Your task to perform on an android device: Do I have any events tomorrow? Image 0: 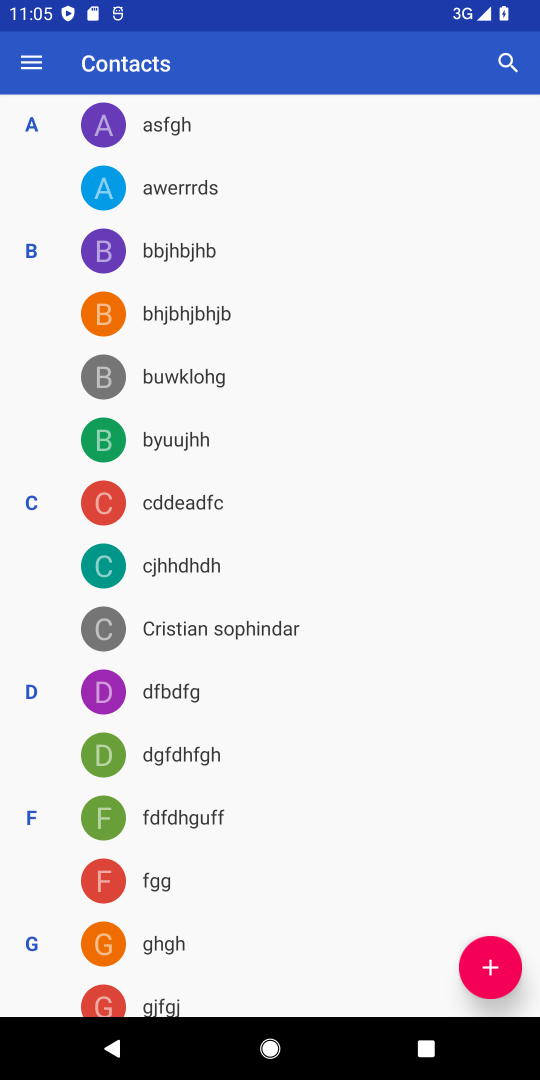
Step 0: press home button
Your task to perform on an android device: Do I have any events tomorrow? Image 1: 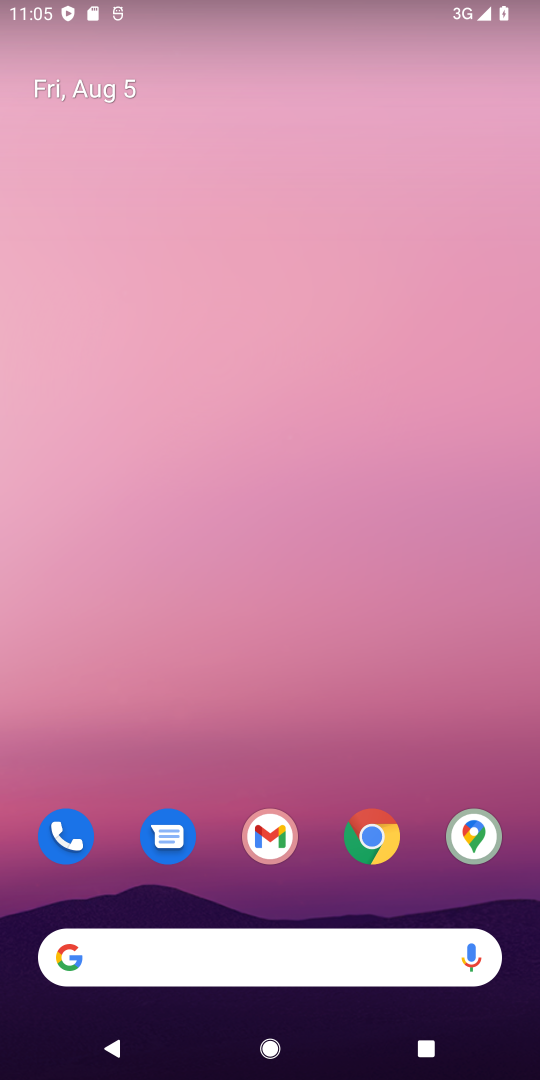
Step 1: drag from (322, 876) to (324, 114)
Your task to perform on an android device: Do I have any events tomorrow? Image 2: 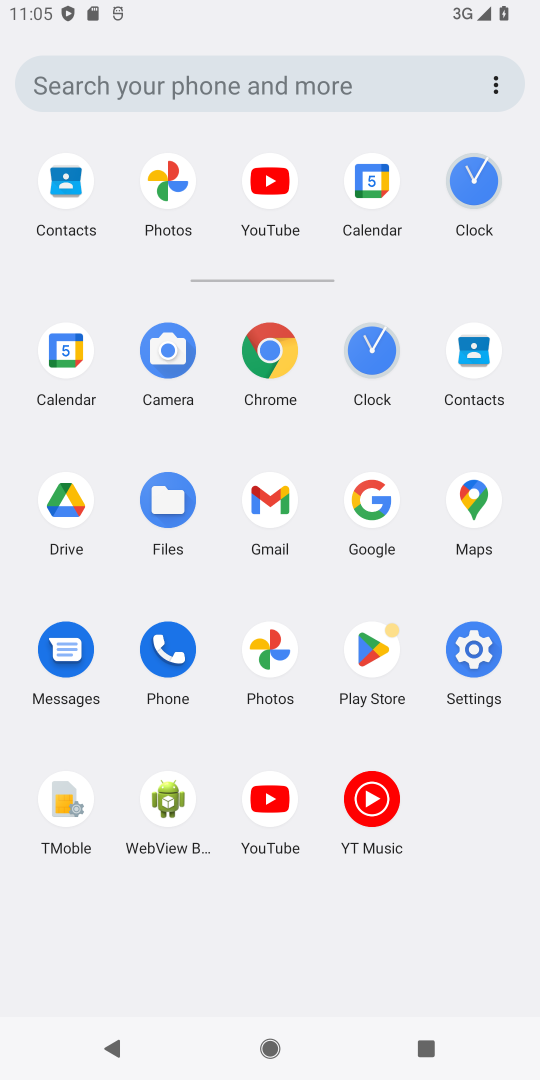
Step 2: click (73, 337)
Your task to perform on an android device: Do I have any events tomorrow? Image 3: 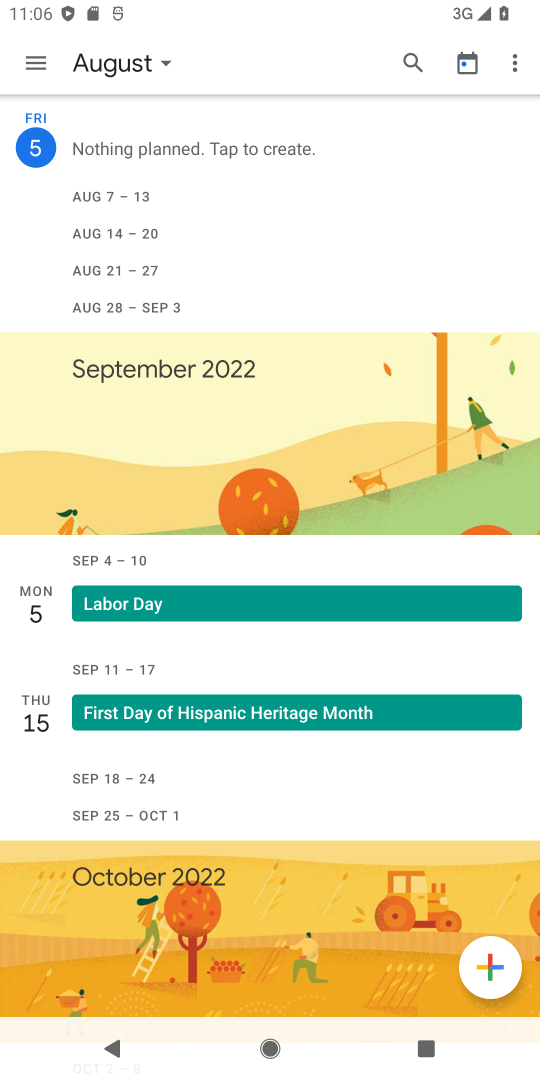
Step 3: click (130, 68)
Your task to perform on an android device: Do I have any events tomorrow? Image 4: 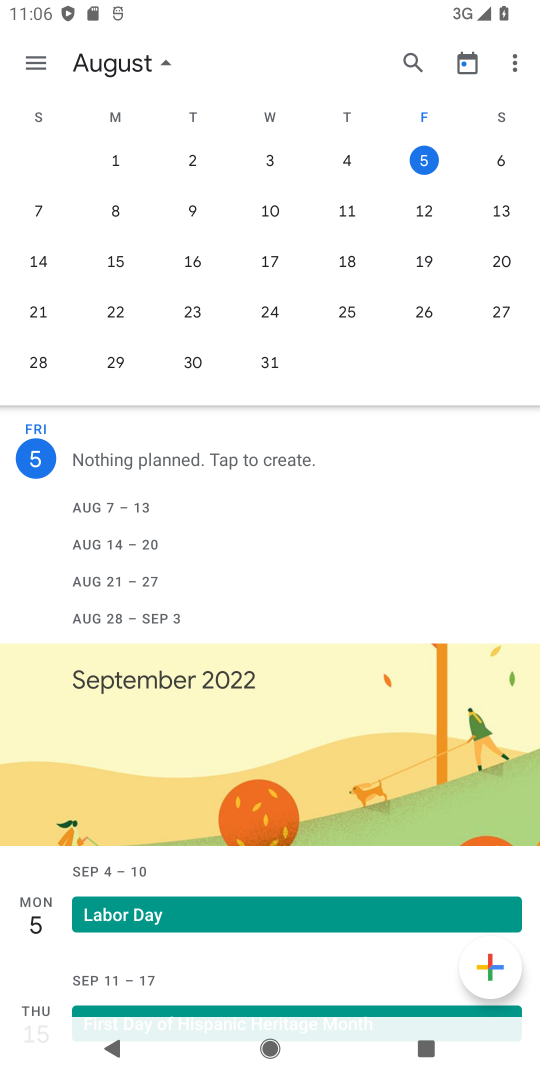
Step 4: click (502, 152)
Your task to perform on an android device: Do I have any events tomorrow? Image 5: 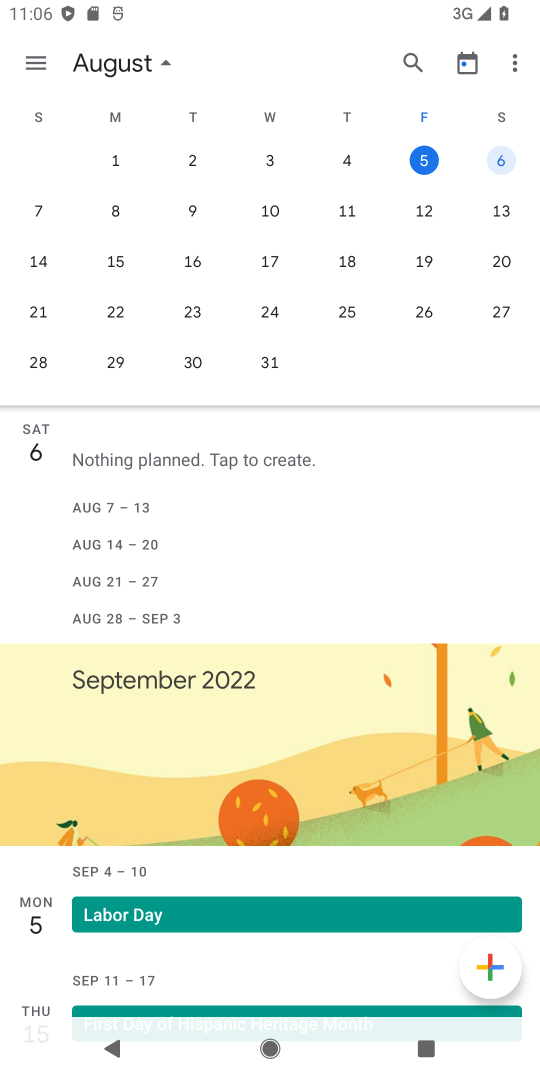
Step 5: click (509, 157)
Your task to perform on an android device: Do I have any events tomorrow? Image 6: 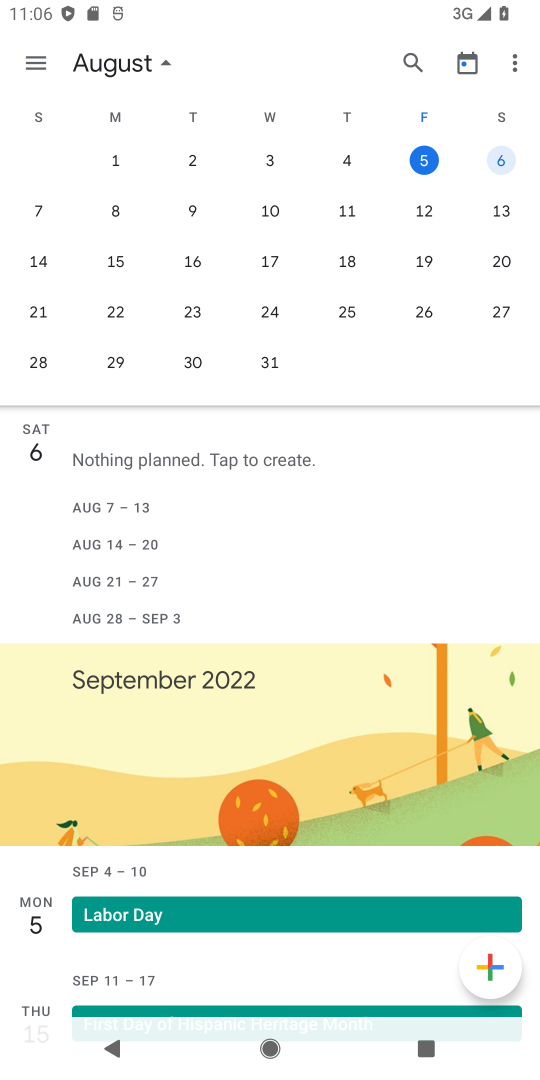
Step 6: task complete